Your task to perform on an android device: delete a single message in the gmail app Image 0: 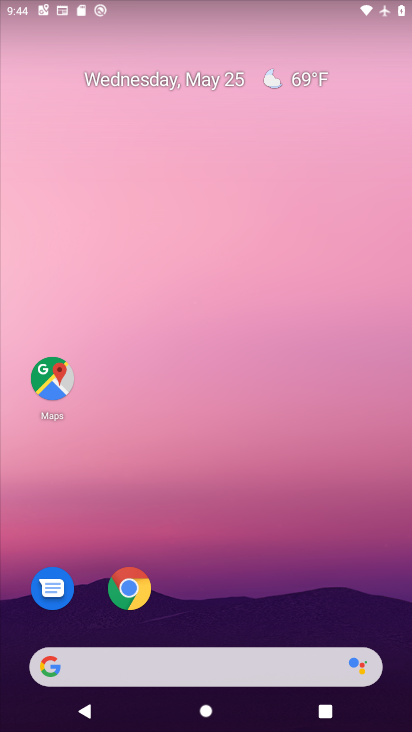
Step 0: drag from (373, 595) to (376, 208)
Your task to perform on an android device: delete a single message in the gmail app Image 1: 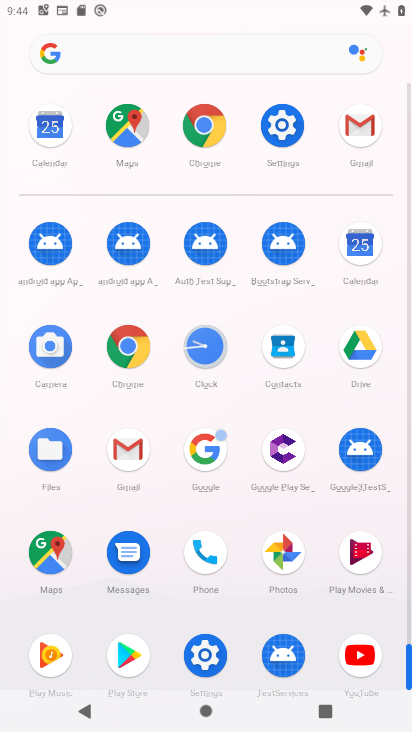
Step 1: click (135, 449)
Your task to perform on an android device: delete a single message in the gmail app Image 2: 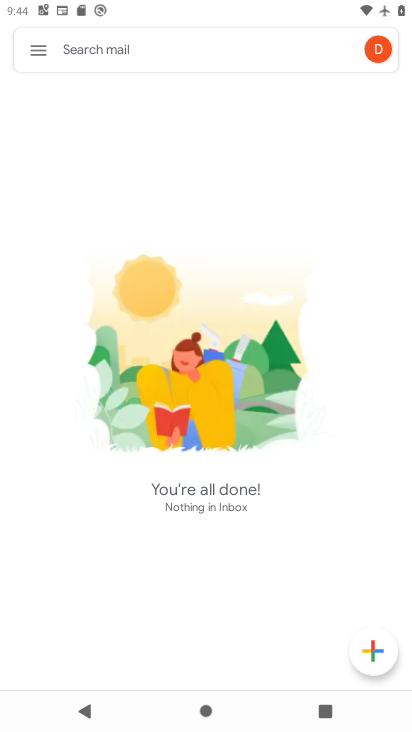
Step 2: click (40, 57)
Your task to perform on an android device: delete a single message in the gmail app Image 3: 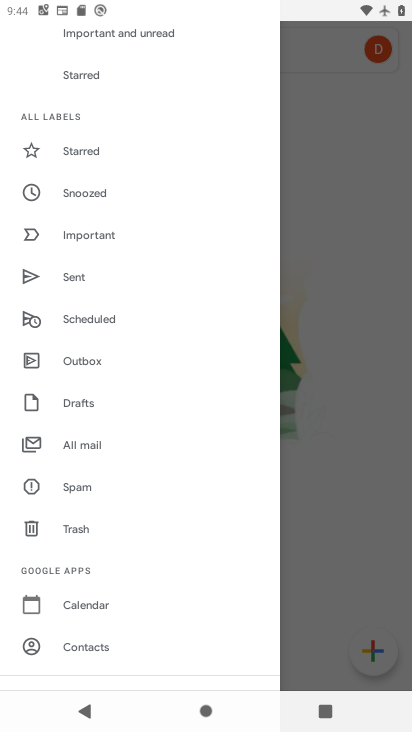
Step 3: drag from (192, 400) to (202, 283)
Your task to perform on an android device: delete a single message in the gmail app Image 4: 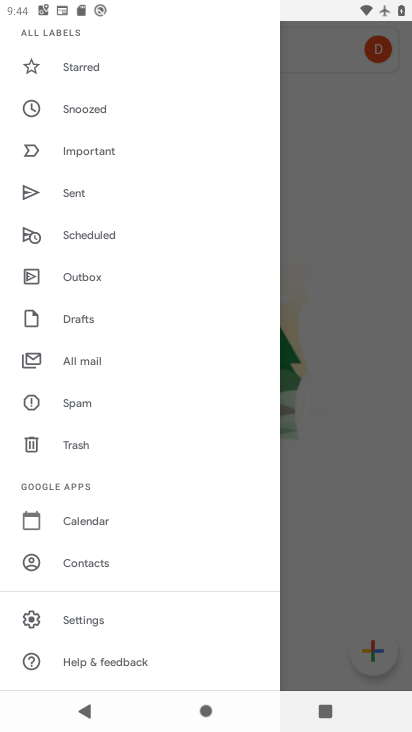
Step 4: drag from (194, 462) to (202, 344)
Your task to perform on an android device: delete a single message in the gmail app Image 5: 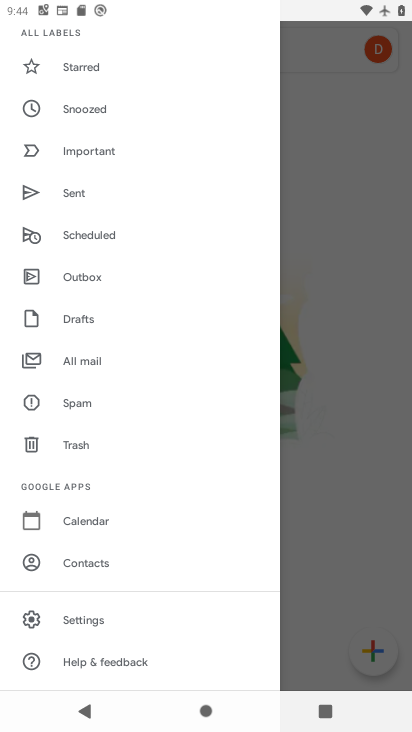
Step 5: drag from (197, 228) to (173, 336)
Your task to perform on an android device: delete a single message in the gmail app Image 6: 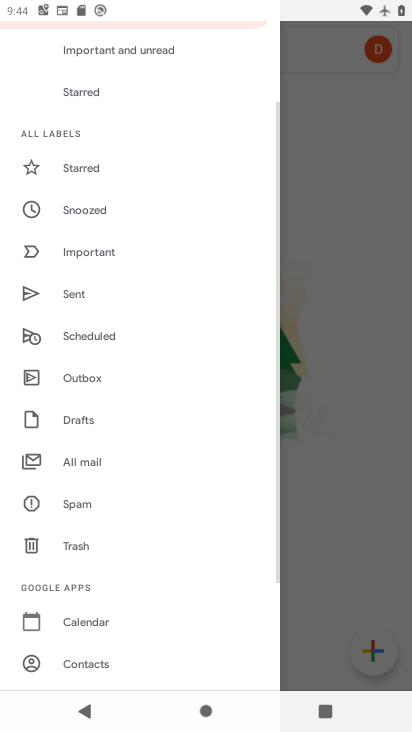
Step 6: drag from (204, 149) to (192, 328)
Your task to perform on an android device: delete a single message in the gmail app Image 7: 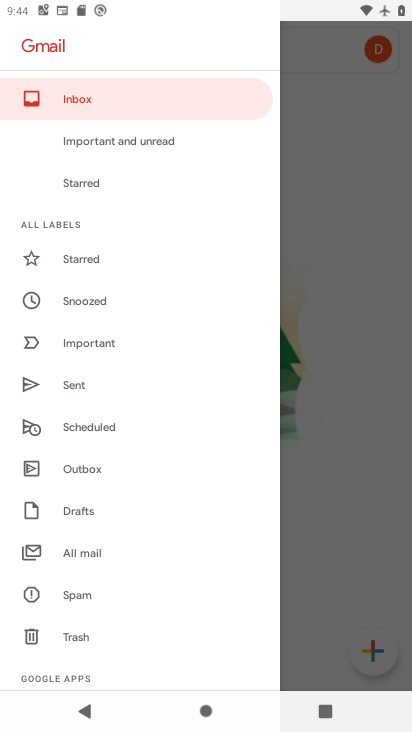
Step 7: click (162, 101)
Your task to perform on an android device: delete a single message in the gmail app Image 8: 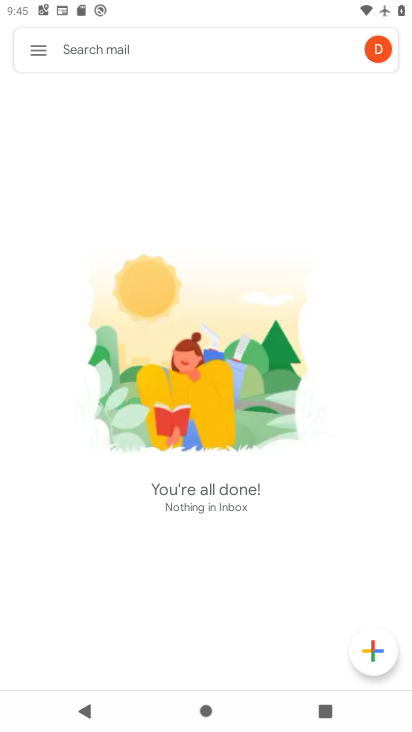
Step 8: task complete